Your task to perform on an android device: Go to calendar. Show me events next week Image 0: 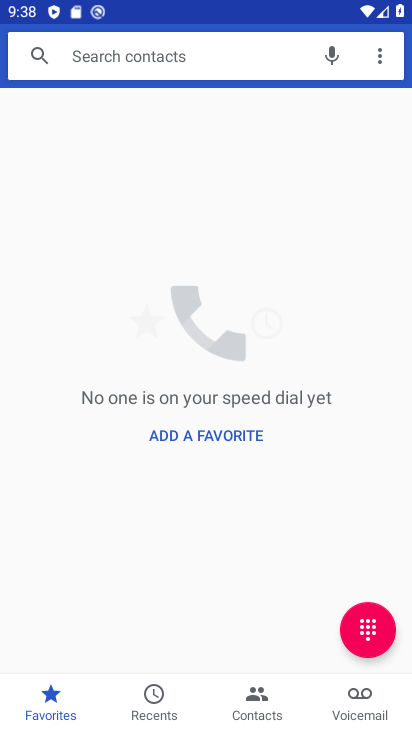
Step 0: task complete